Your task to perform on an android device: Go to Amazon Image 0: 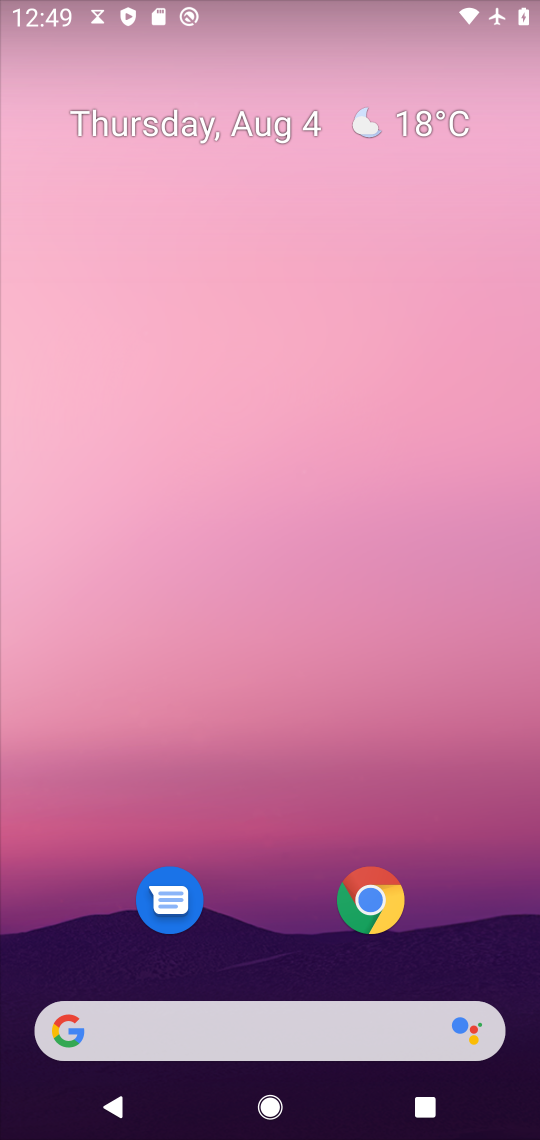
Step 0: press home button
Your task to perform on an android device: Go to Amazon Image 1: 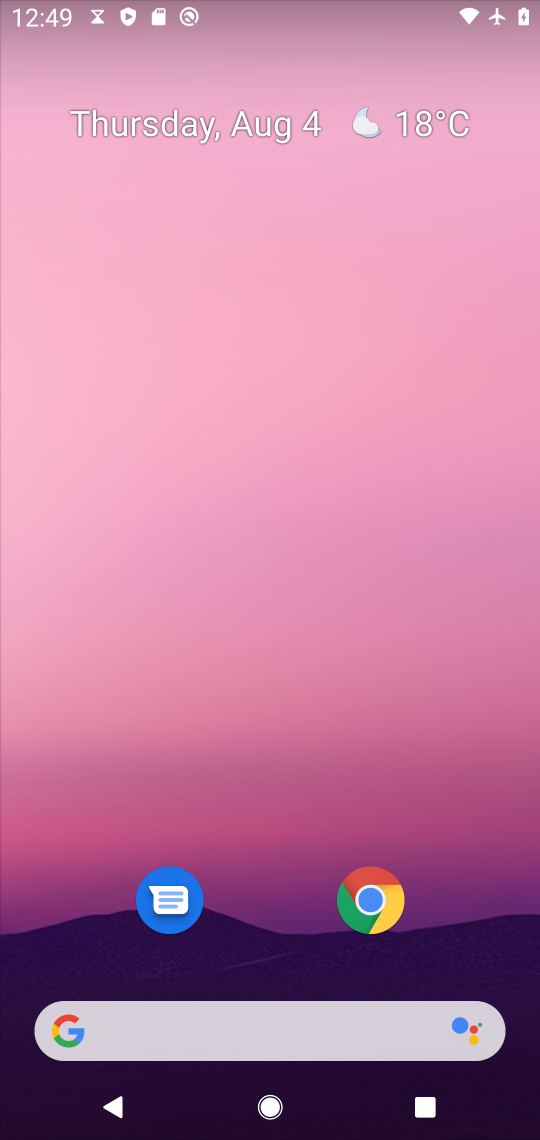
Step 1: click (76, 1038)
Your task to perform on an android device: Go to Amazon Image 2: 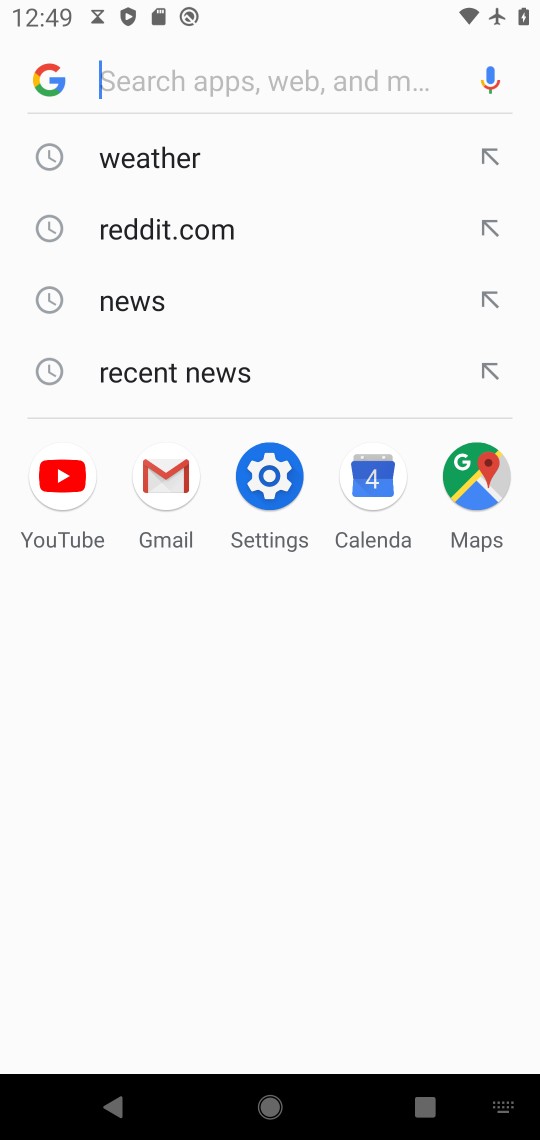
Step 2: type " Amazon"
Your task to perform on an android device: Go to Amazon Image 3: 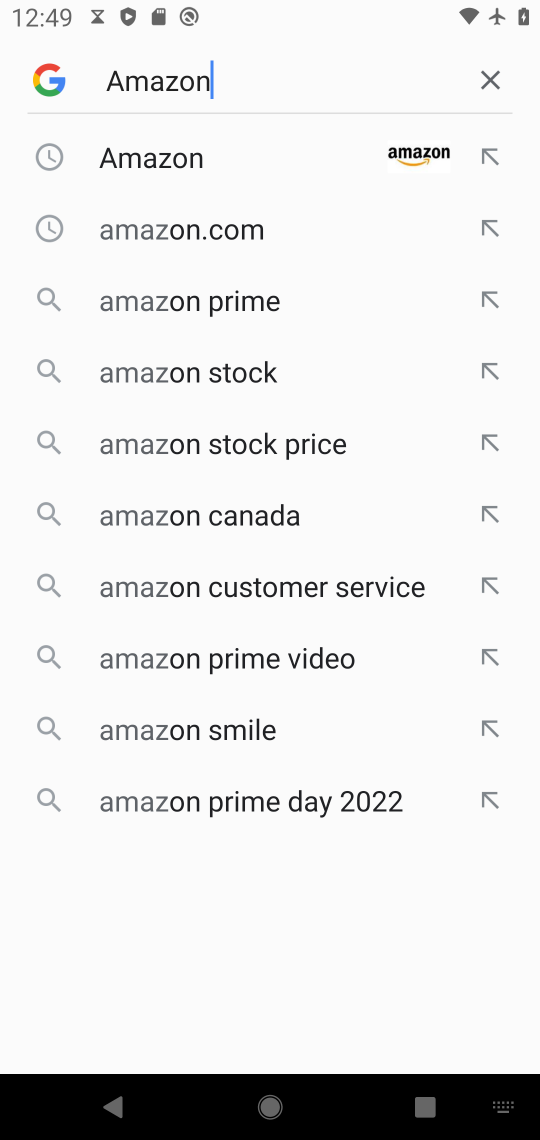
Step 3: press enter
Your task to perform on an android device: Go to Amazon Image 4: 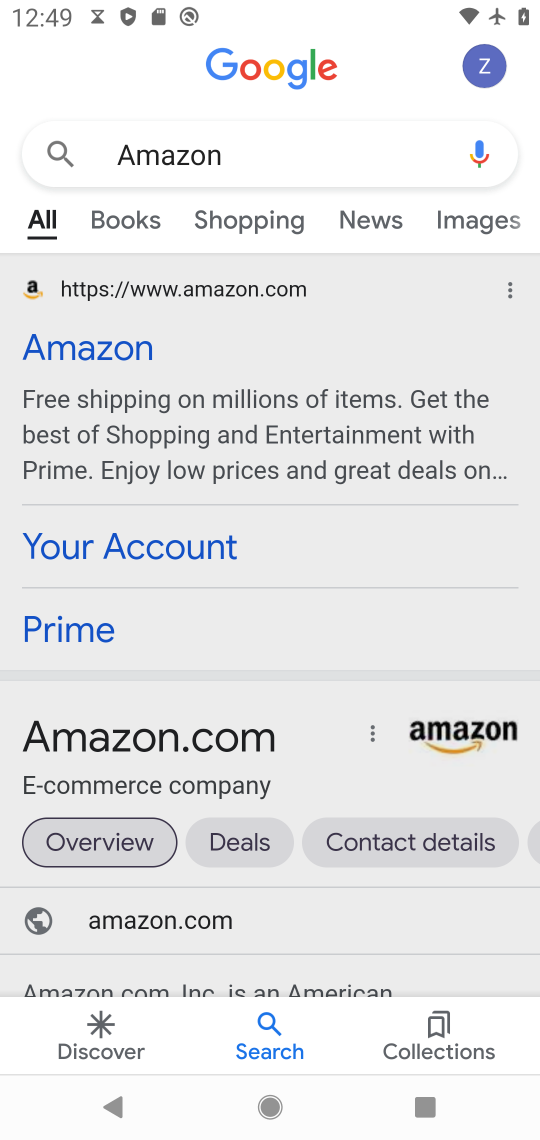
Step 4: click (71, 348)
Your task to perform on an android device: Go to Amazon Image 5: 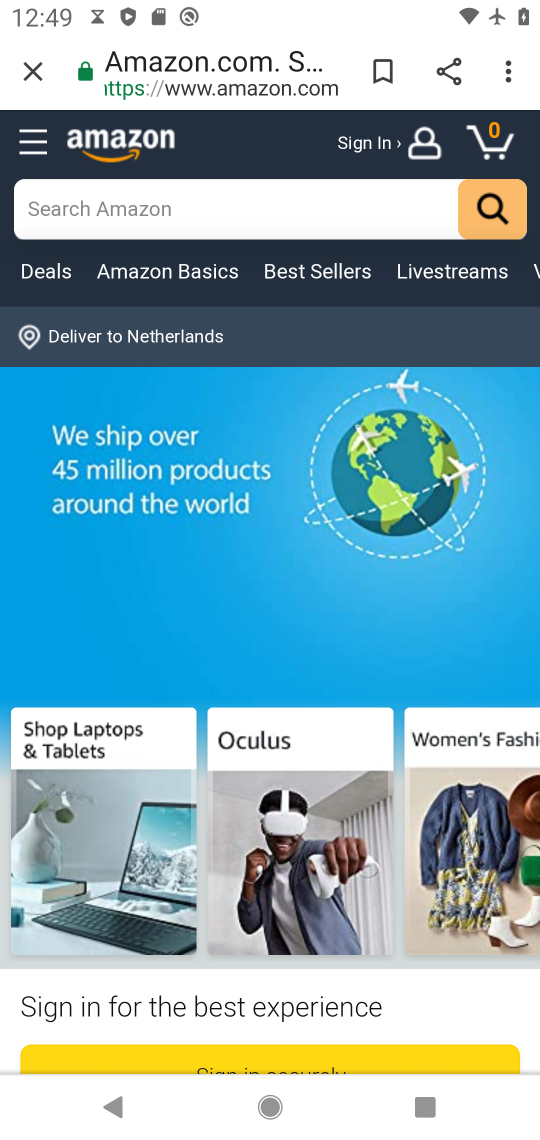
Step 5: task complete